Your task to perform on an android device: visit the assistant section in the google photos Image 0: 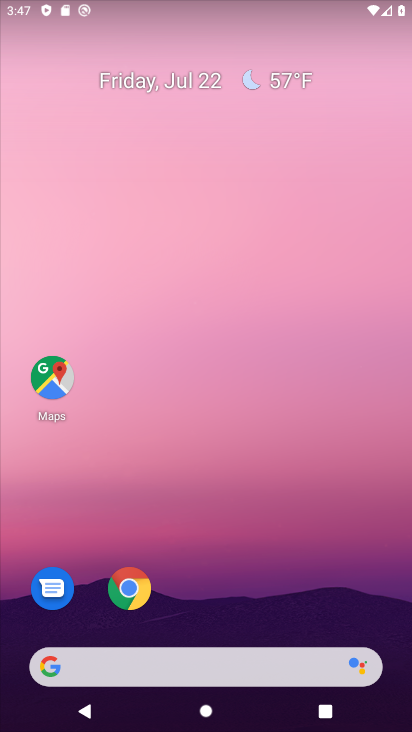
Step 0: drag from (197, 636) to (134, 84)
Your task to perform on an android device: visit the assistant section in the google photos Image 1: 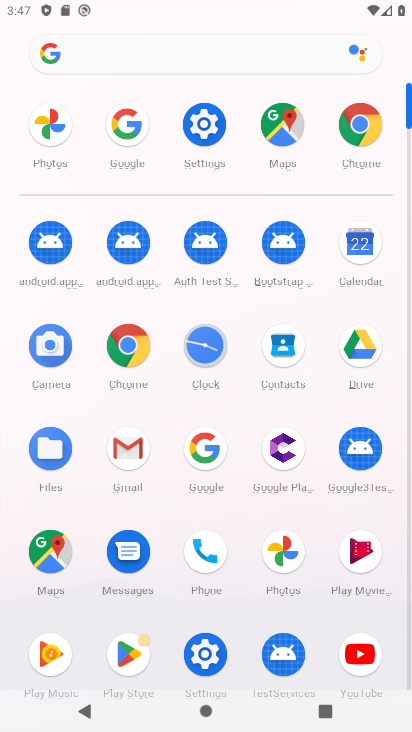
Step 1: click (269, 572)
Your task to perform on an android device: visit the assistant section in the google photos Image 2: 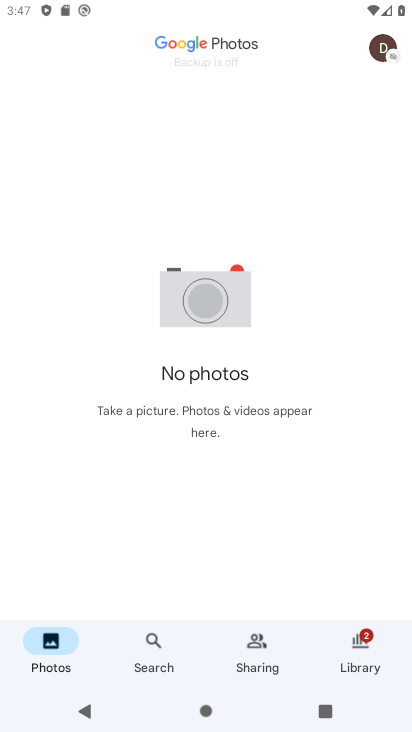
Step 2: click (373, 45)
Your task to perform on an android device: visit the assistant section in the google photos Image 3: 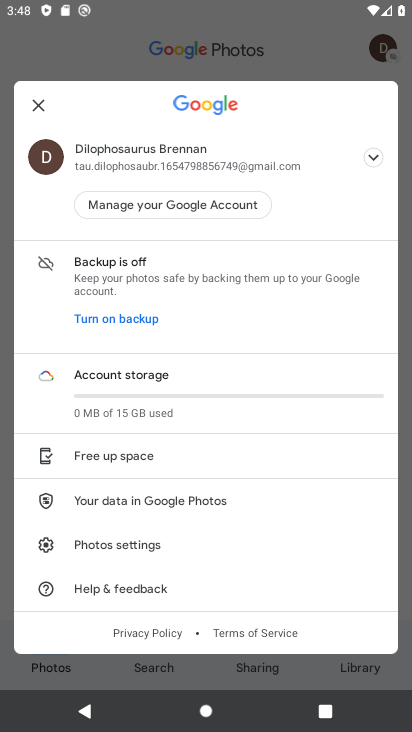
Step 3: click (373, 684)
Your task to perform on an android device: visit the assistant section in the google photos Image 4: 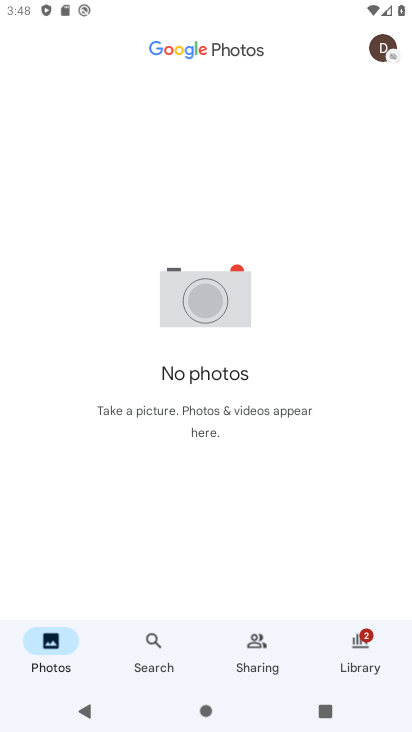
Step 4: click (364, 675)
Your task to perform on an android device: visit the assistant section in the google photos Image 5: 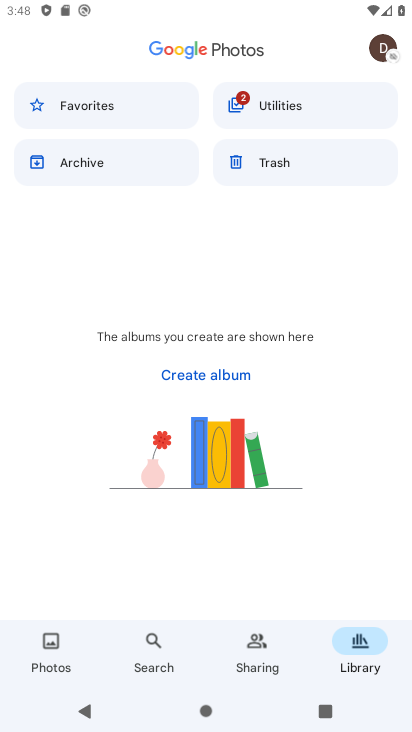
Step 5: click (271, 635)
Your task to perform on an android device: visit the assistant section in the google photos Image 6: 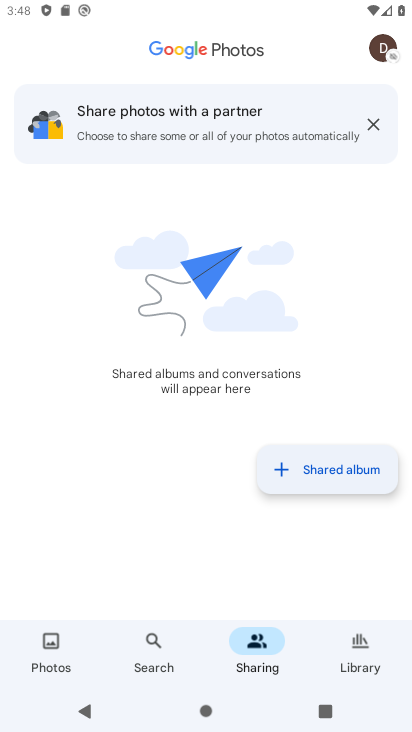
Step 6: task complete